Your task to perform on an android device: change the clock display to digital Image 0: 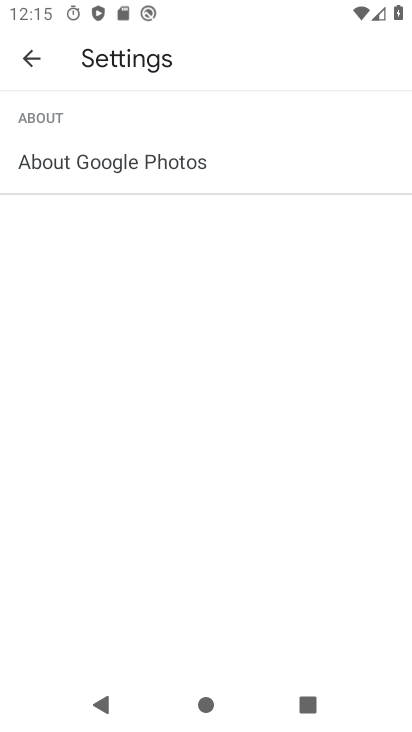
Step 0: press home button
Your task to perform on an android device: change the clock display to digital Image 1: 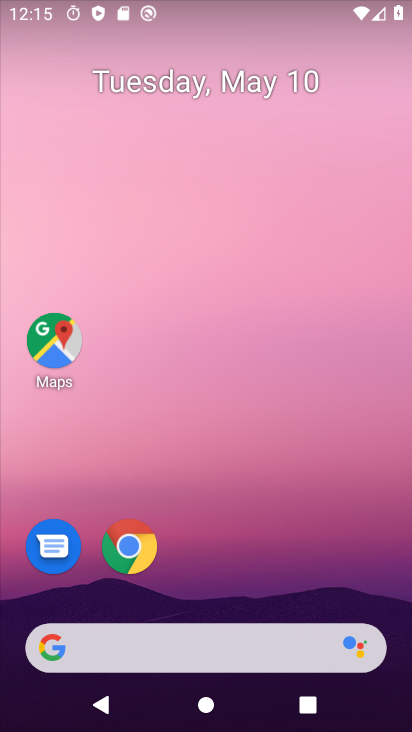
Step 1: drag from (306, 507) to (306, 19)
Your task to perform on an android device: change the clock display to digital Image 2: 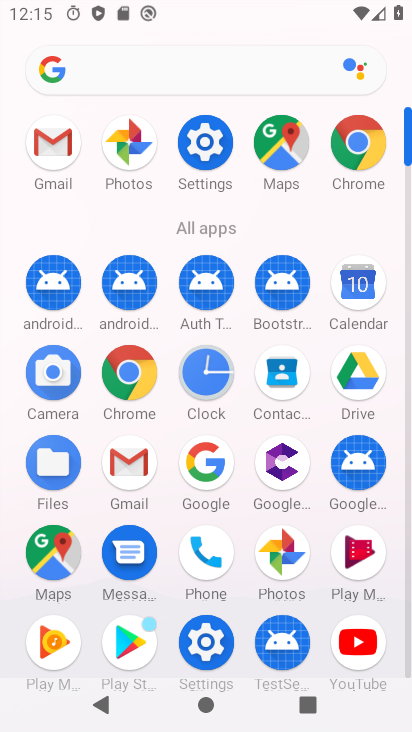
Step 2: click (190, 380)
Your task to perform on an android device: change the clock display to digital Image 3: 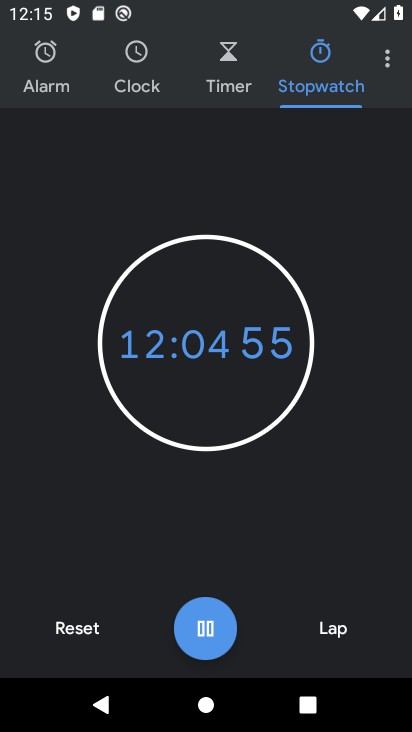
Step 3: click (391, 61)
Your task to perform on an android device: change the clock display to digital Image 4: 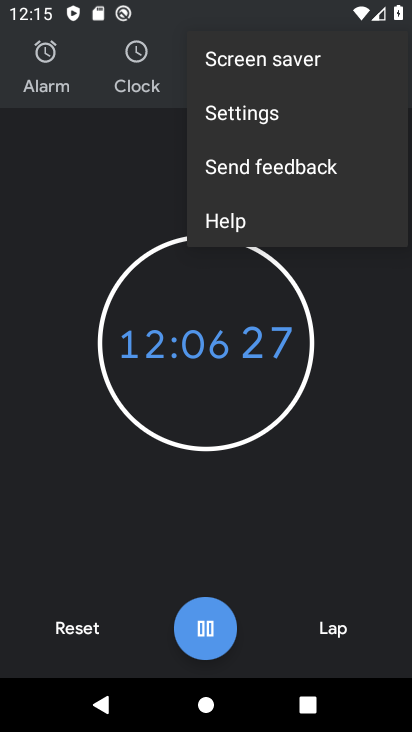
Step 4: click (319, 110)
Your task to perform on an android device: change the clock display to digital Image 5: 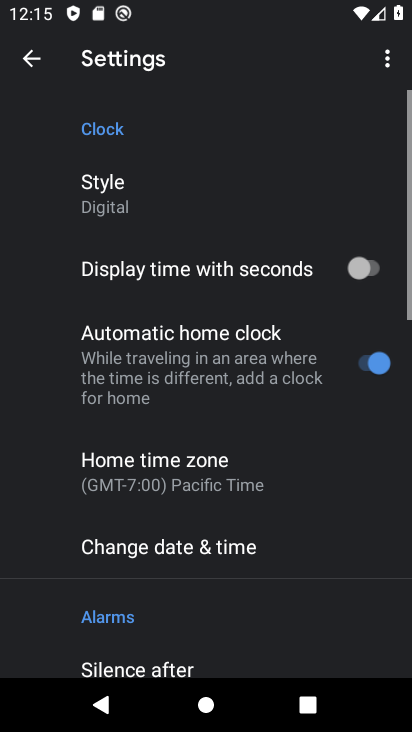
Step 5: click (127, 214)
Your task to perform on an android device: change the clock display to digital Image 6: 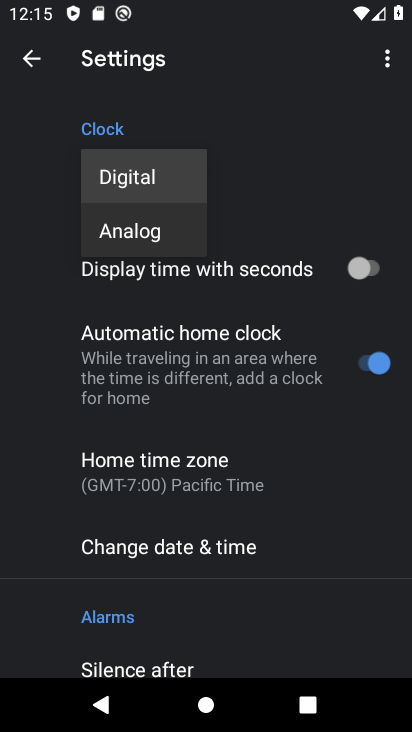
Step 6: task complete